Your task to perform on an android device: install app "Facebook" Image 0: 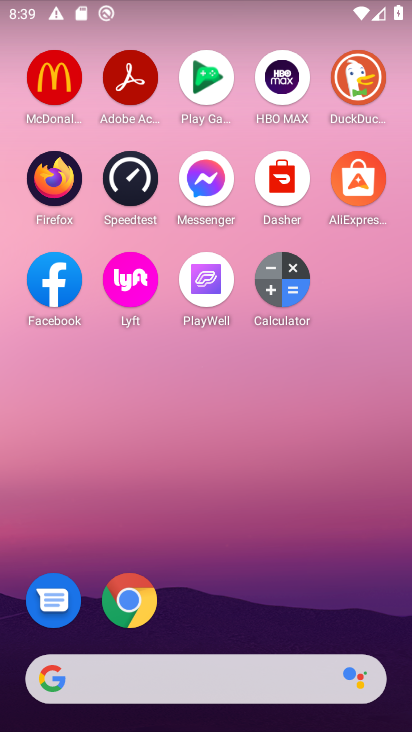
Step 0: drag from (199, 615) to (201, 92)
Your task to perform on an android device: install app "Facebook" Image 1: 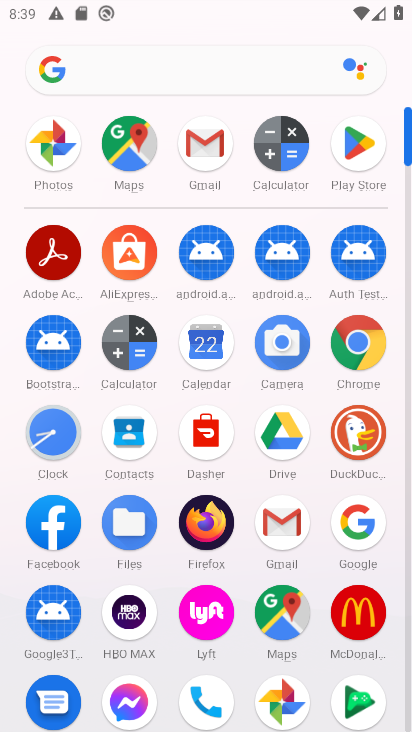
Step 1: click (359, 156)
Your task to perform on an android device: install app "Facebook" Image 2: 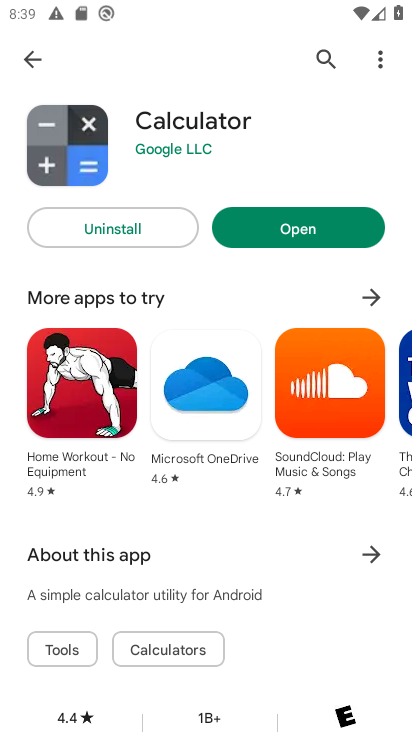
Step 2: click (327, 55)
Your task to perform on an android device: install app "Facebook" Image 3: 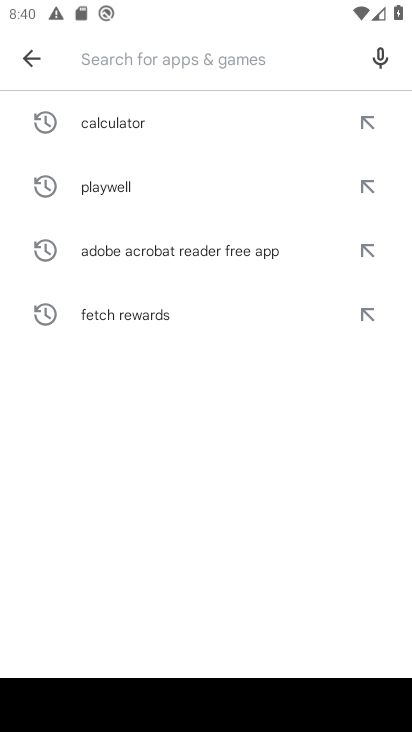
Step 3: type "Facebook"
Your task to perform on an android device: install app "Facebook" Image 4: 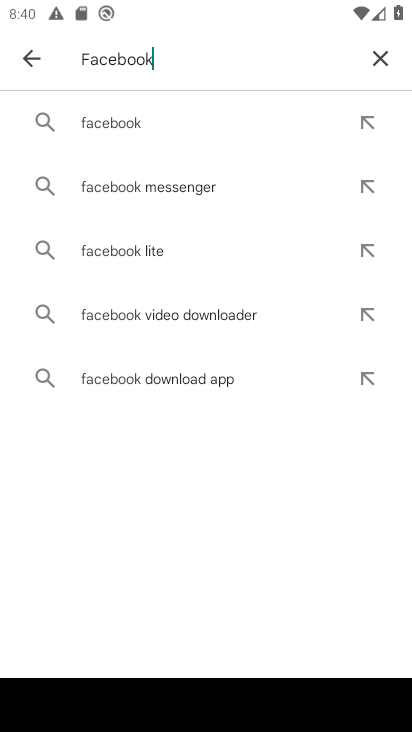
Step 4: type ""
Your task to perform on an android device: install app "Facebook" Image 5: 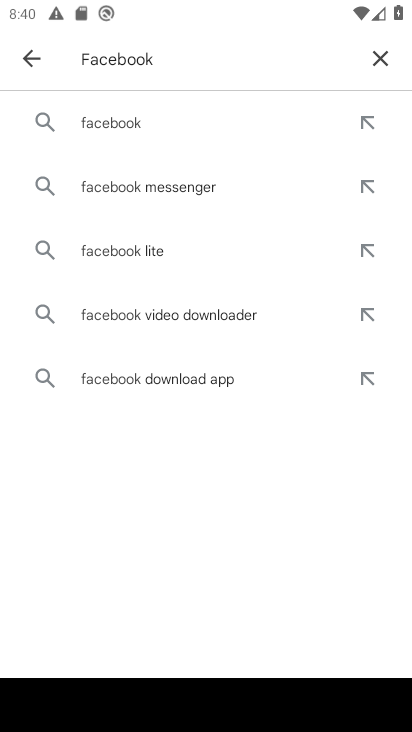
Step 5: click (157, 131)
Your task to perform on an android device: install app "Facebook" Image 6: 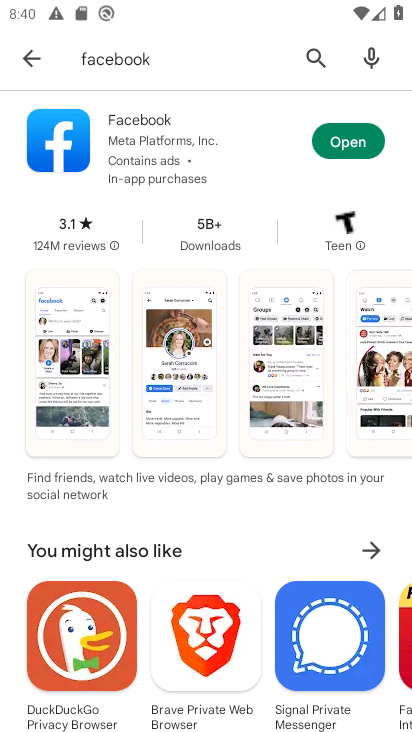
Step 6: task complete